Your task to perform on an android device: Show me the alarms in the clock app Image 0: 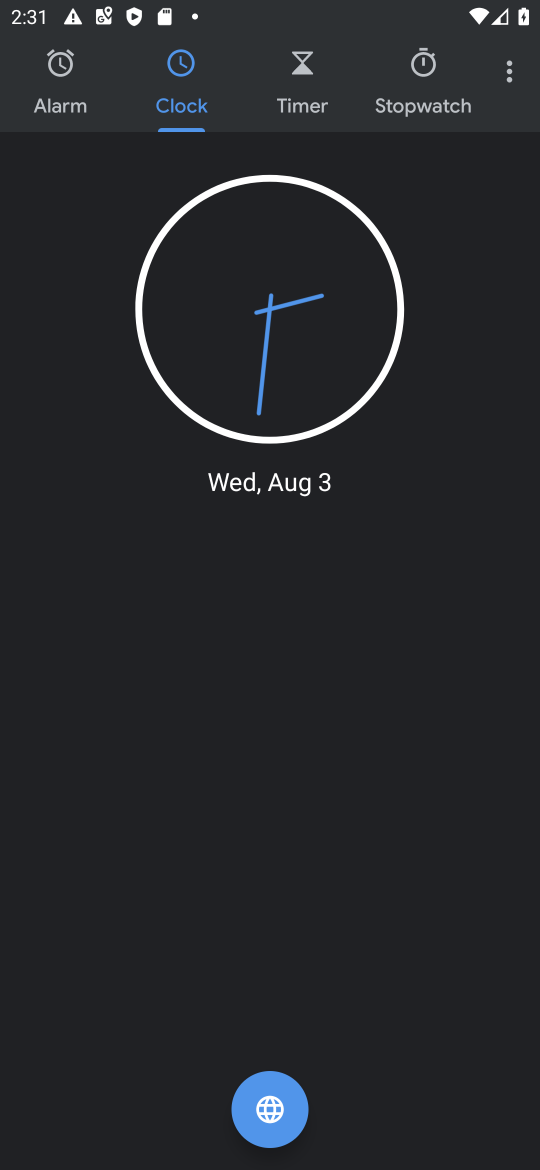
Step 0: click (62, 89)
Your task to perform on an android device: Show me the alarms in the clock app Image 1: 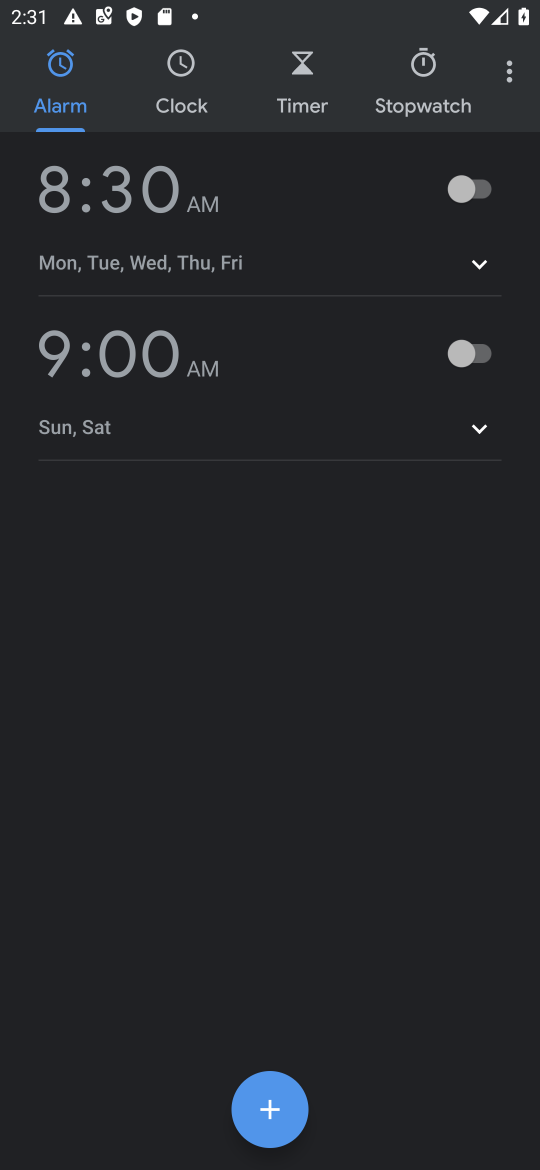
Step 1: task complete